Your task to perform on an android device: Go to Google Image 0: 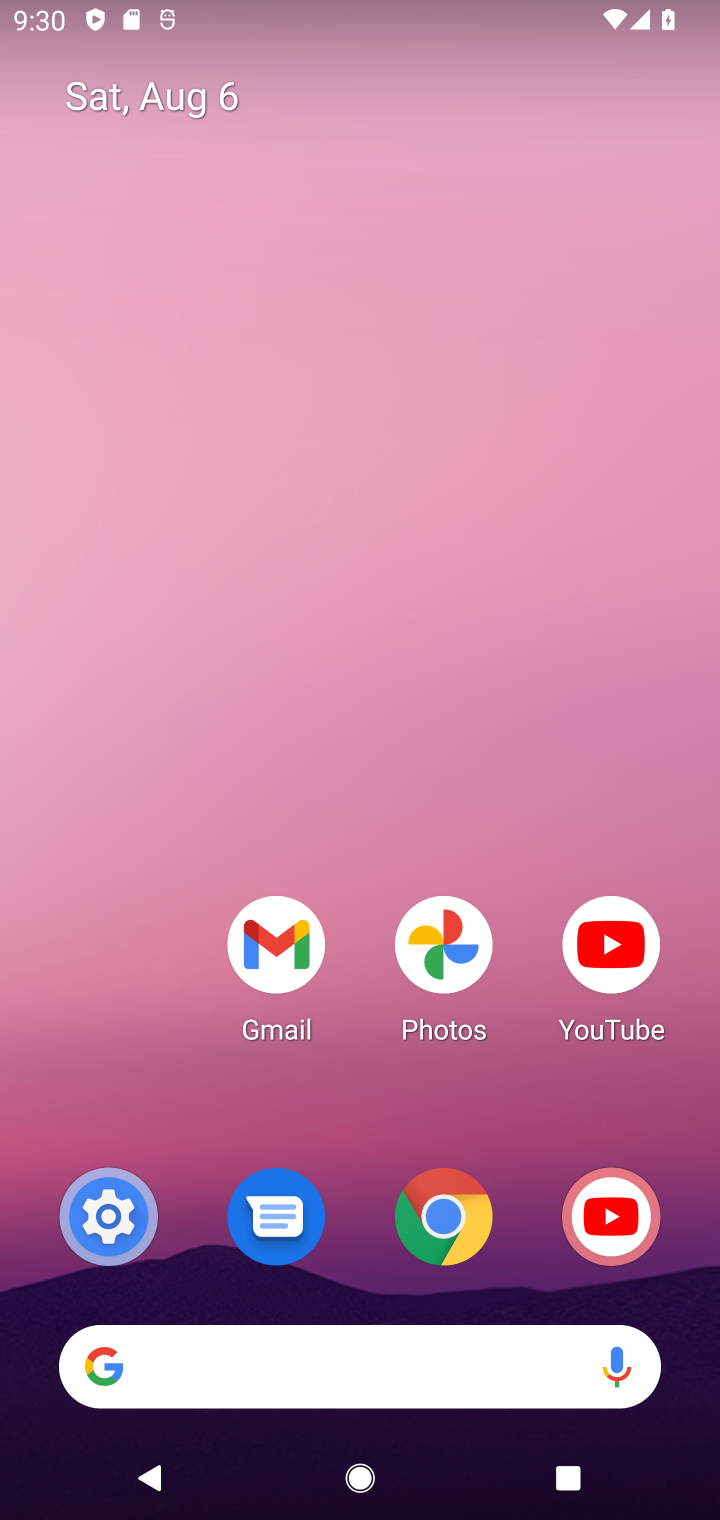
Step 0: drag from (352, 1183) to (352, 353)
Your task to perform on an android device: Go to Google Image 1: 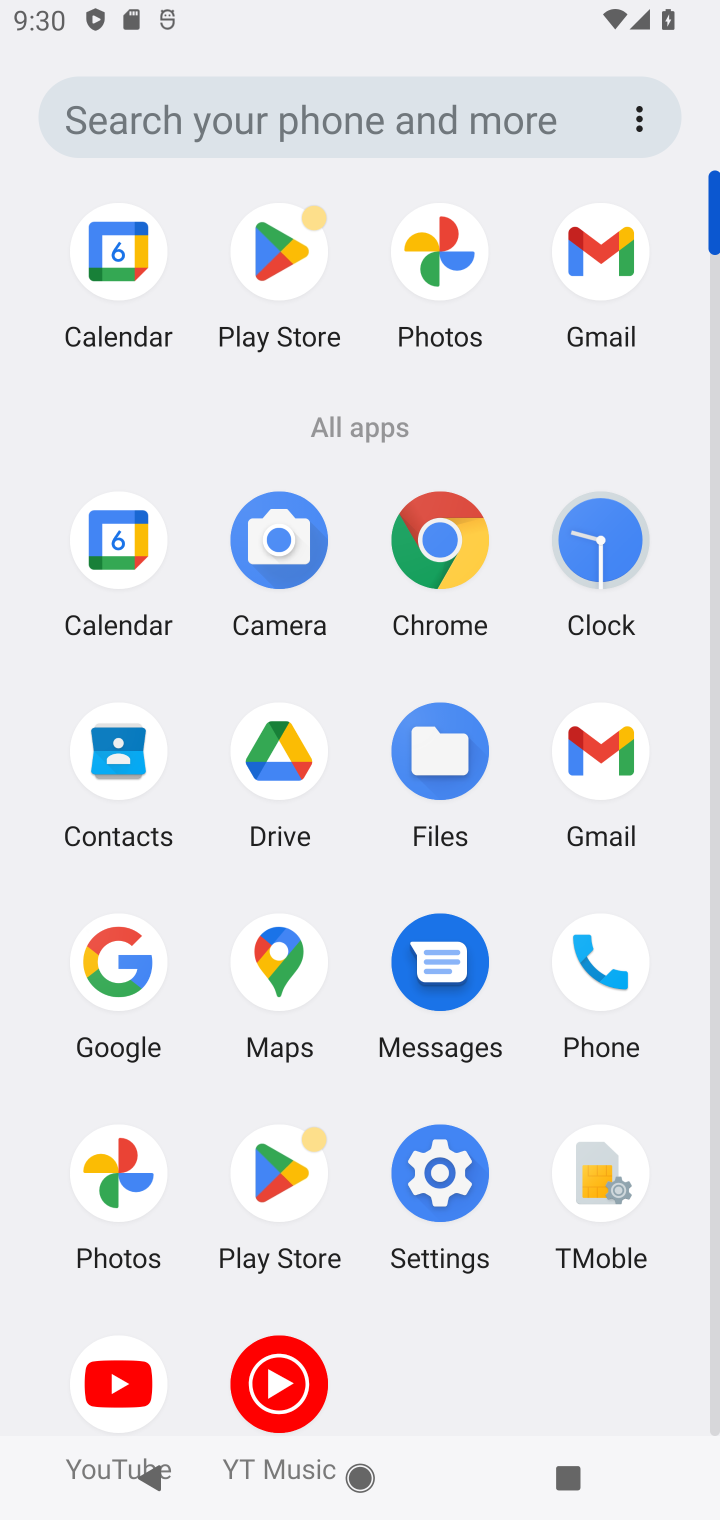
Step 1: click (135, 962)
Your task to perform on an android device: Go to Google Image 2: 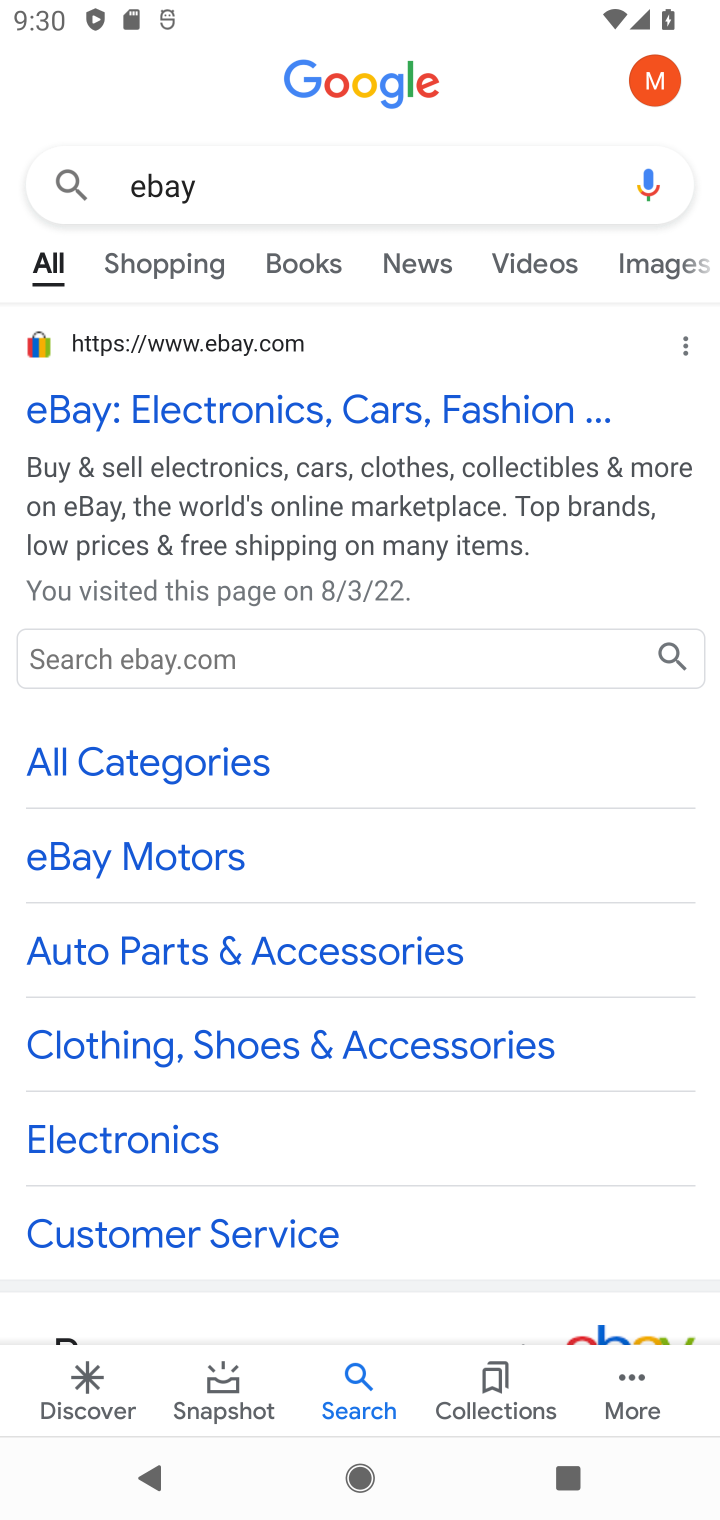
Step 2: click (228, 183)
Your task to perform on an android device: Go to Google Image 3: 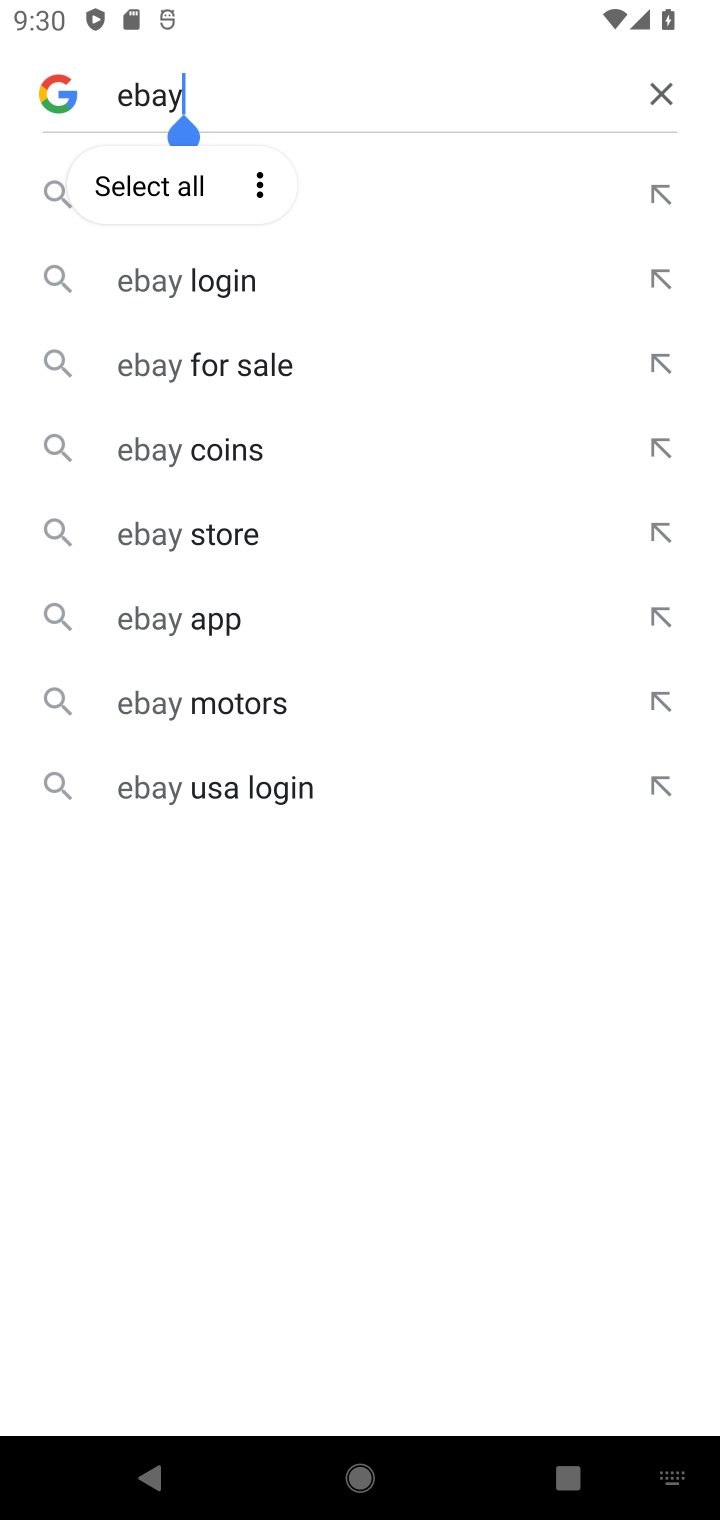
Step 3: click (644, 102)
Your task to perform on an android device: Go to Google Image 4: 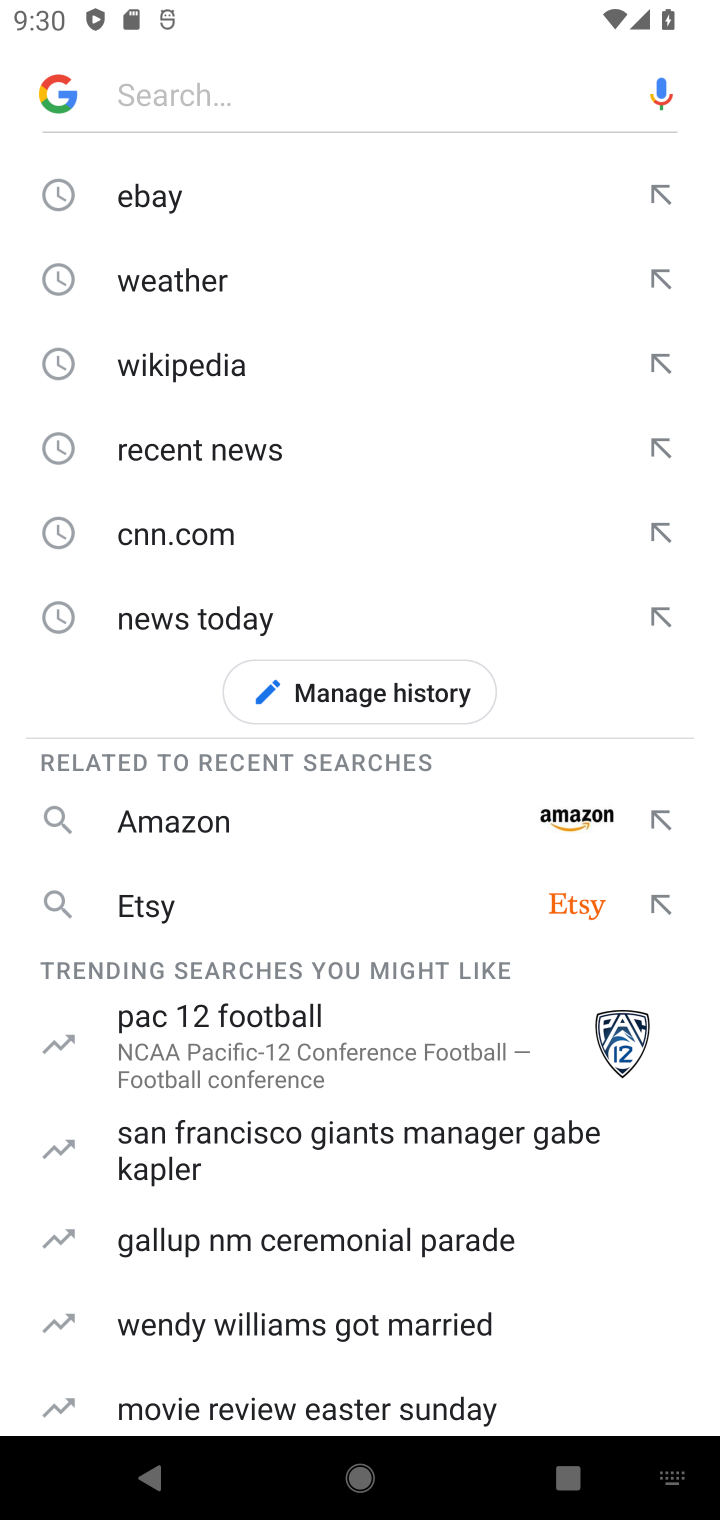
Step 4: task complete